Your task to perform on an android device: Open the phone app and click the voicemail tab. Image 0: 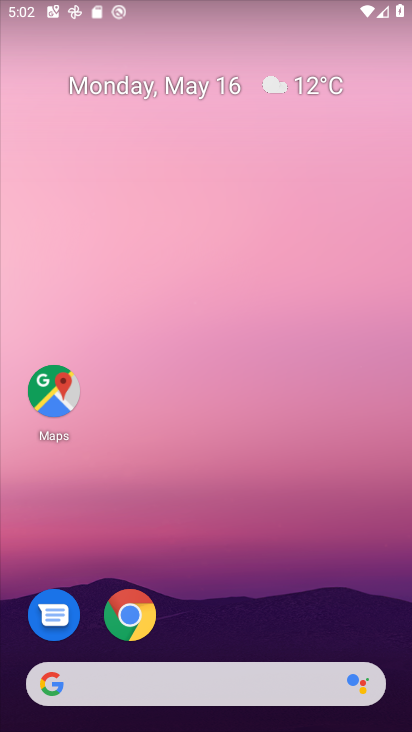
Step 0: click (244, 134)
Your task to perform on an android device: Open the phone app and click the voicemail tab. Image 1: 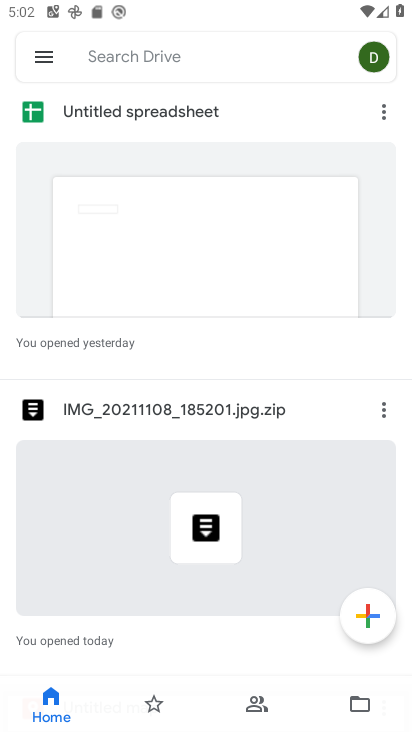
Step 1: press home button
Your task to perform on an android device: Open the phone app and click the voicemail tab. Image 2: 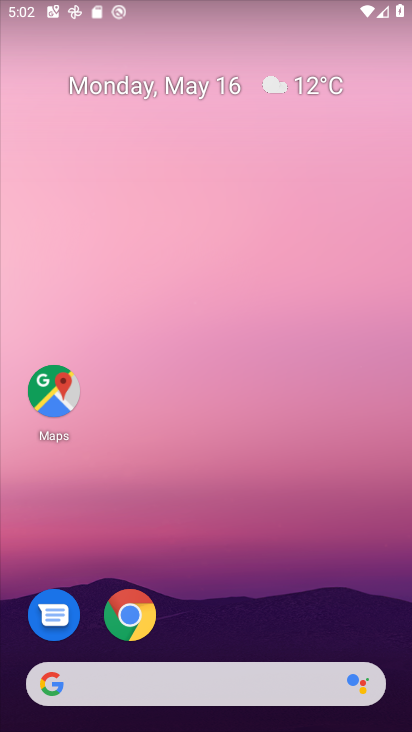
Step 2: drag from (226, 623) to (334, 252)
Your task to perform on an android device: Open the phone app and click the voicemail tab. Image 3: 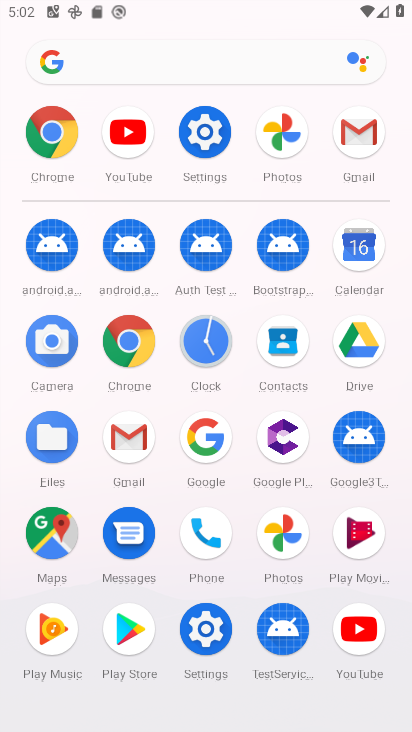
Step 3: click (199, 532)
Your task to perform on an android device: Open the phone app and click the voicemail tab. Image 4: 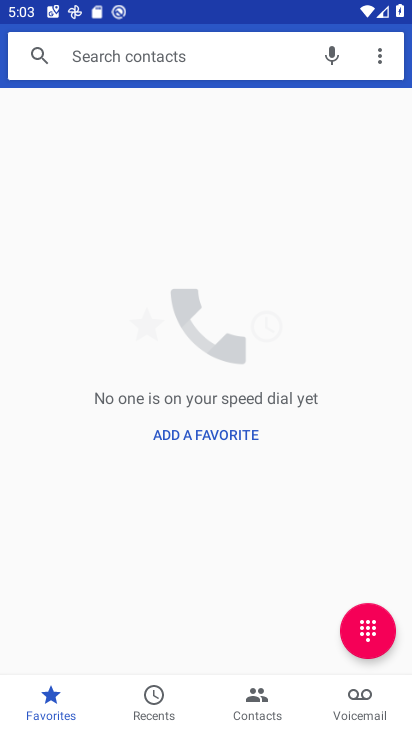
Step 4: click (368, 706)
Your task to perform on an android device: Open the phone app and click the voicemail tab. Image 5: 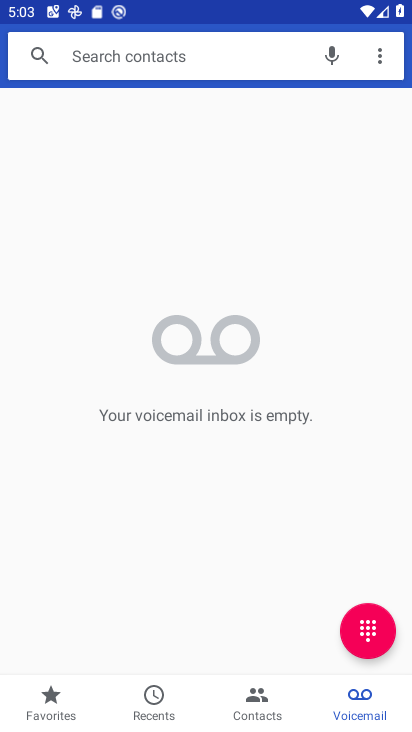
Step 5: task complete